Your task to perform on an android device: Find coffee shops on Maps Image 0: 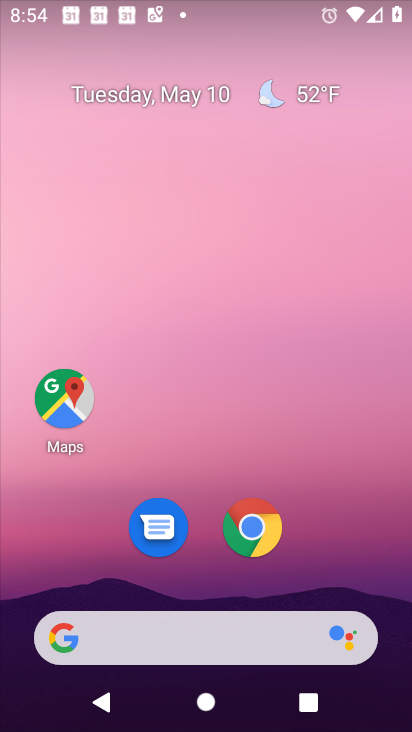
Step 0: click (58, 393)
Your task to perform on an android device: Find coffee shops on Maps Image 1: 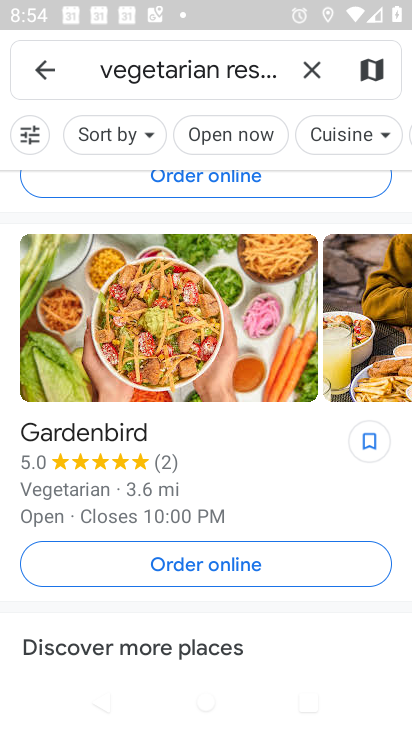
Step 1: click (307, 66)
Your task to perform on an android device: Find coffee shops on Maps Image 2: 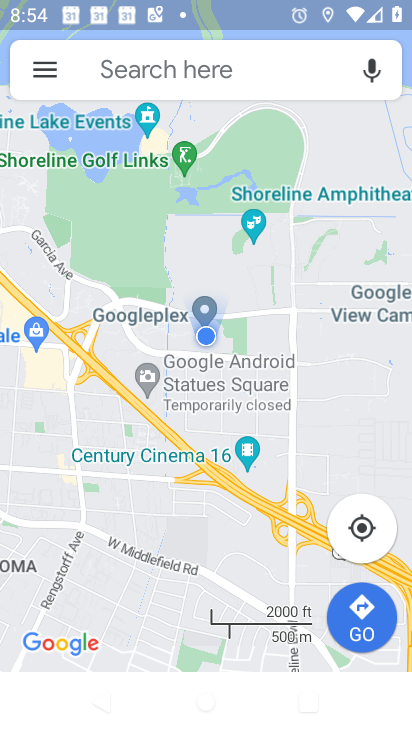
Step 2: click (214, 70)
Your task to perform on an android device: Find coffee shops on Maps Image 3: 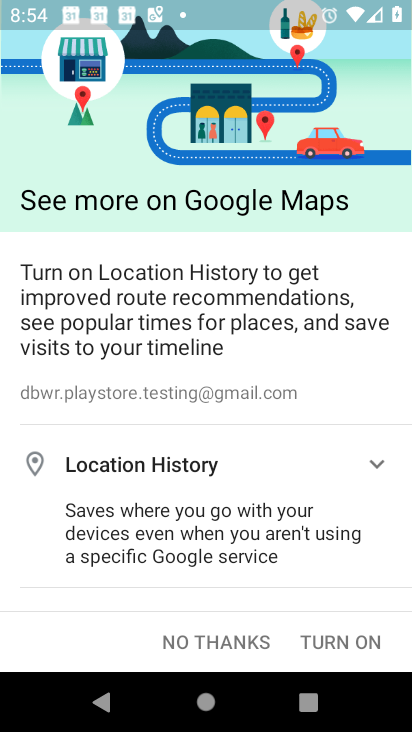
Step 3: press back button
Your task to perform on an android device: Find coffee shops on Maps Image 4: 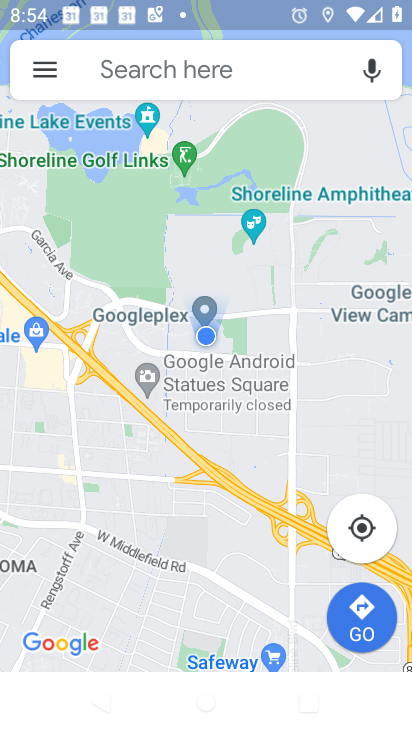
Step 4: click (167, 72)
Your task to perform on an android device: Find coffee shops on Maps Image 5: 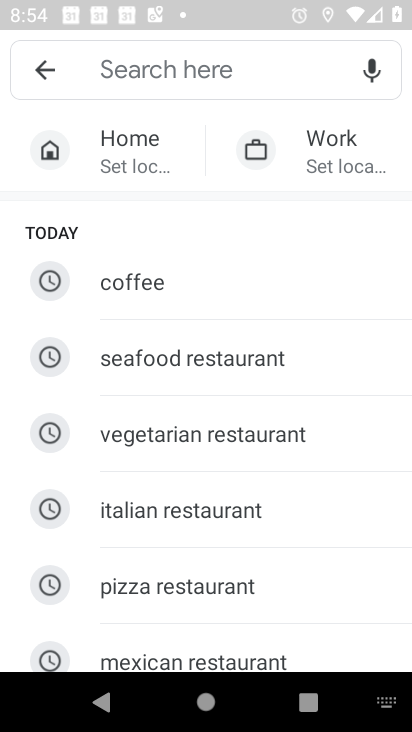
Step 5: click (117, 284)
Your task to perform on an android device: Find coffee shops on Maps Image 6: 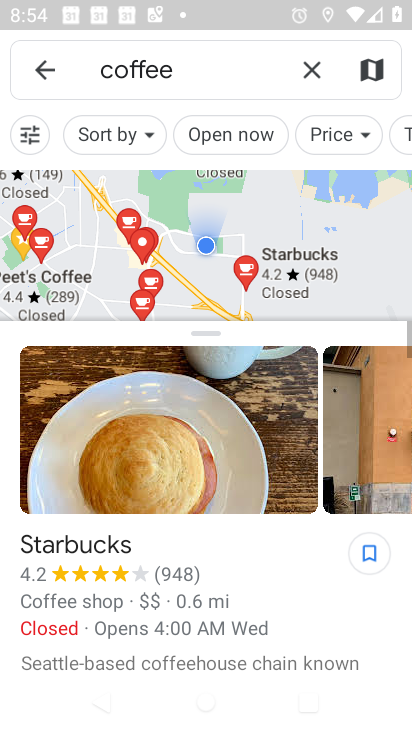
Step 6: task complete